Your task to perform on an android device: Turn on the flashlight Image 0: 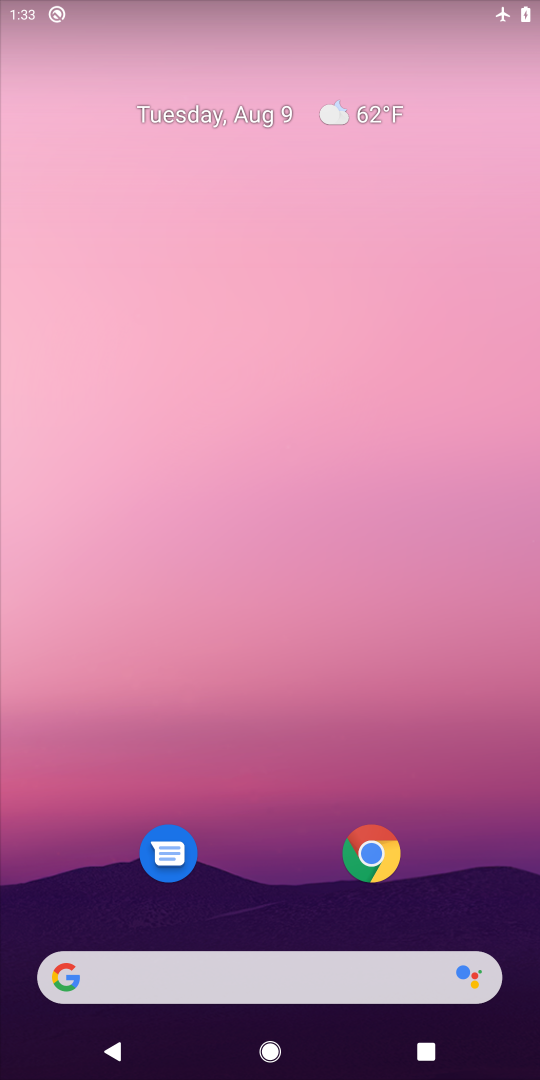
Step 0: press home button
Your task to perform on an android device: Turn on the flashlight Image 1: 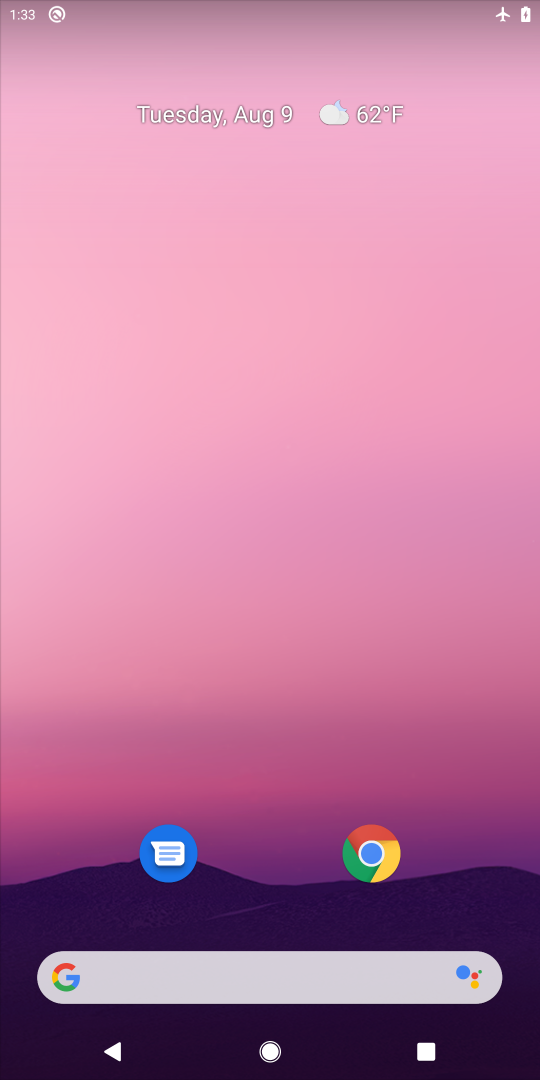
Step 1: task complete